Your task to perform on an android device: turn off javascript in the chrome app Image 0: 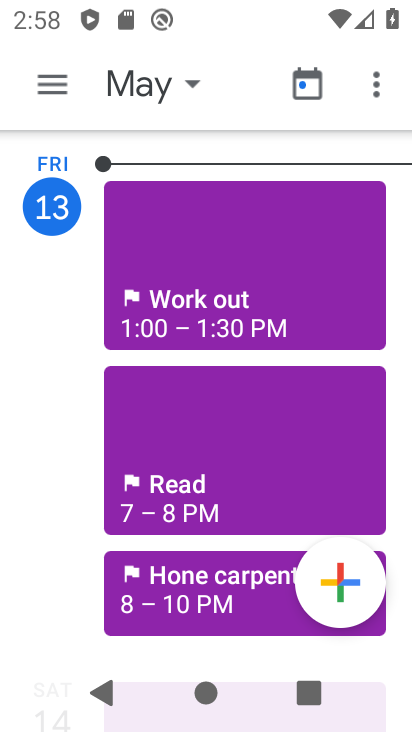
Step 0: press home button
Your task to perform on an android device: turn off javascript in the chrome app Image 1: 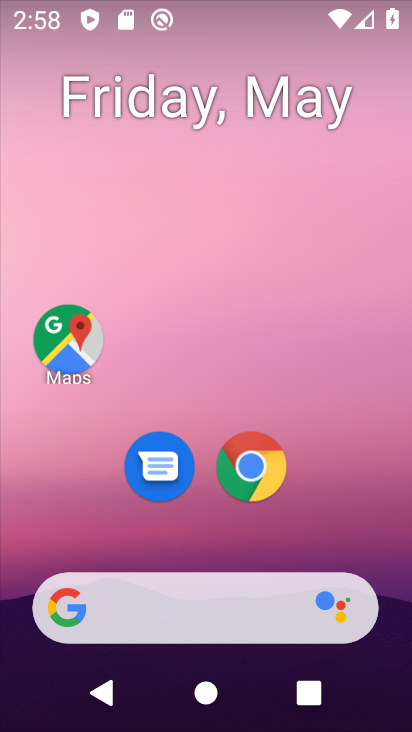
Step 1: click (252, 465)
Your task to perform on an android device: turn off javascript in the chrome app Image 2: 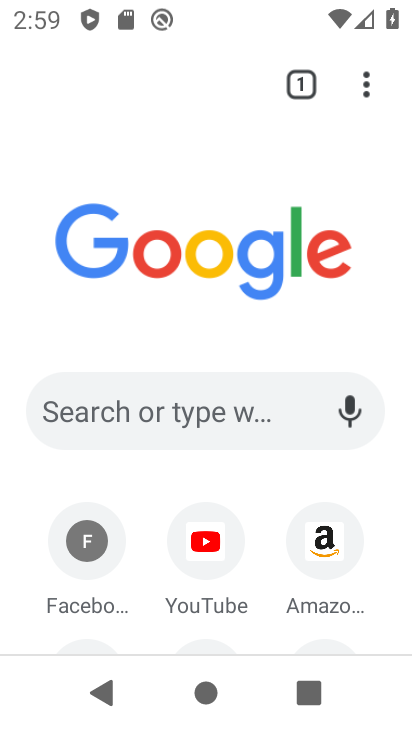
Step 2: click (374, 83)
Your task to perform on an android device: turn off javascript in the chrome app Image 3: 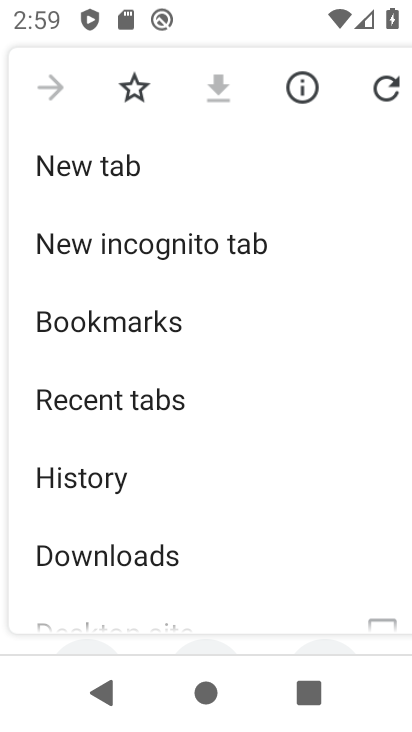
Step 3: drag from (199, 564) to (231, 124)
Your task to perform on an android device: turn off javascript in the chrome app Image 4: 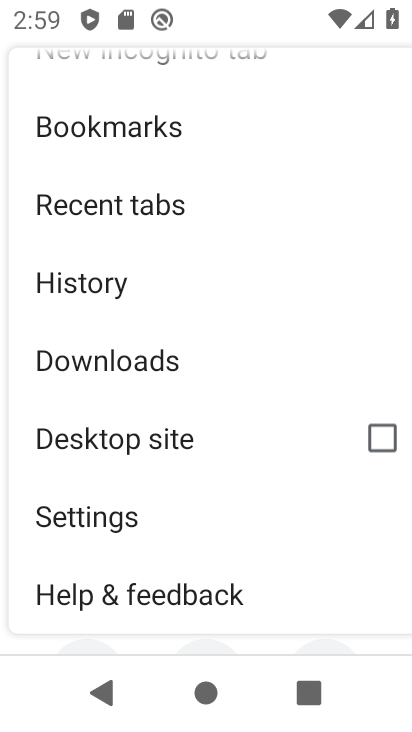
Step 4: drag from (180, 562) to (181, 460)
Your task to perform on an android device: turn off javascript in the chrome app Image 5: 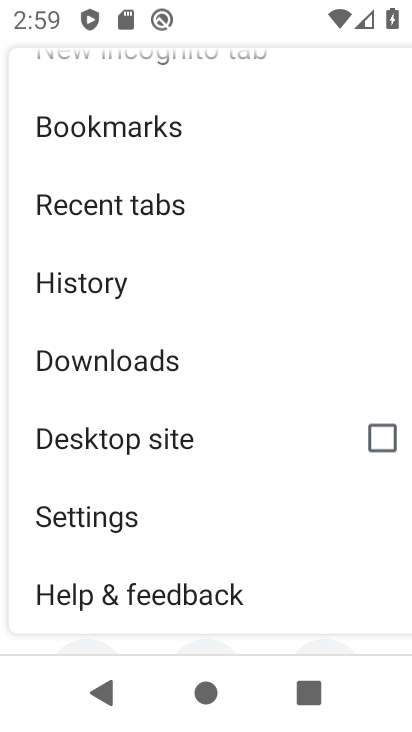
Step 5: click (145, 506)
Your task to perform on an android device: turn off javascript in the chrome app Image 6: 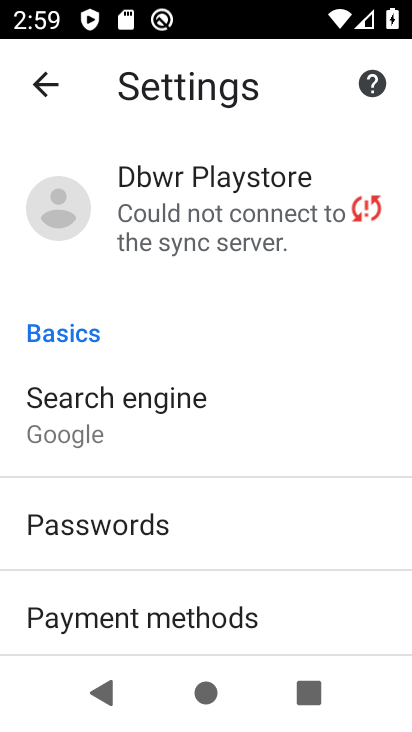
Step 6: click (271, 269)
Your task to perform on an android device: turn off javascript in the chrome app Image 7: 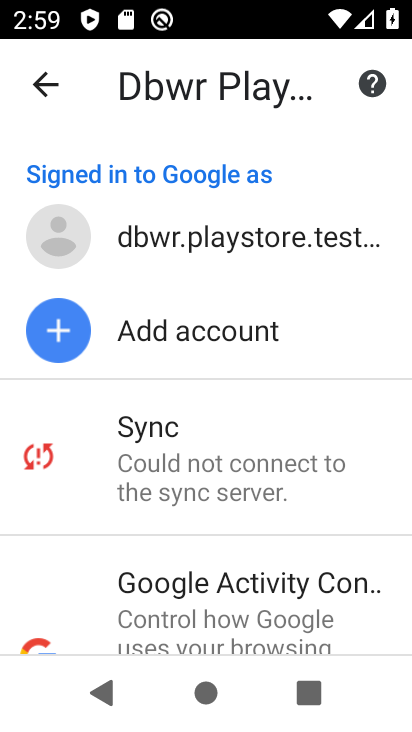
Step 7: click (48, 96)
Your task to perform on an android device: turn off javascript in the chrome app Image 8: 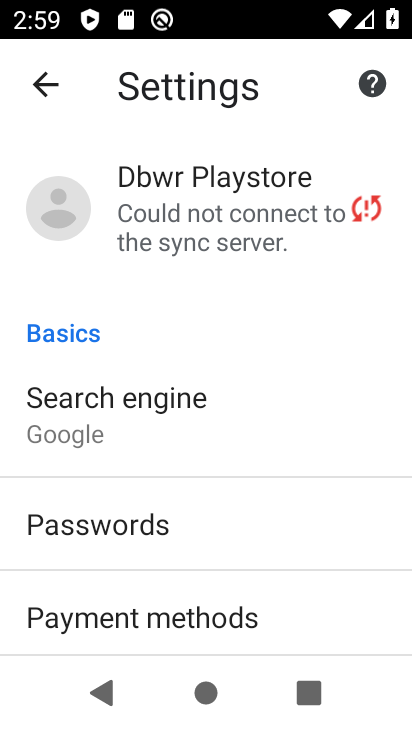
Step 8: drag from (153, 484) to (150, 92)
Your task to perform on an android device: turn off javascript in the chrome app Image 9: 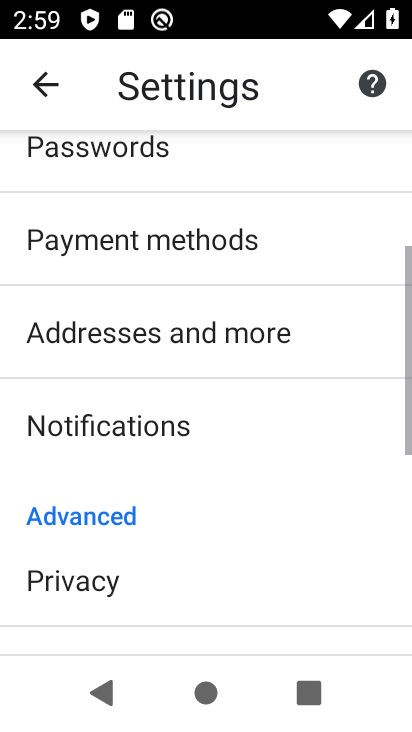
Step 9: click (253, 246)
Your task to perform on an android device: turn off javascript in the chrome app Image 10: 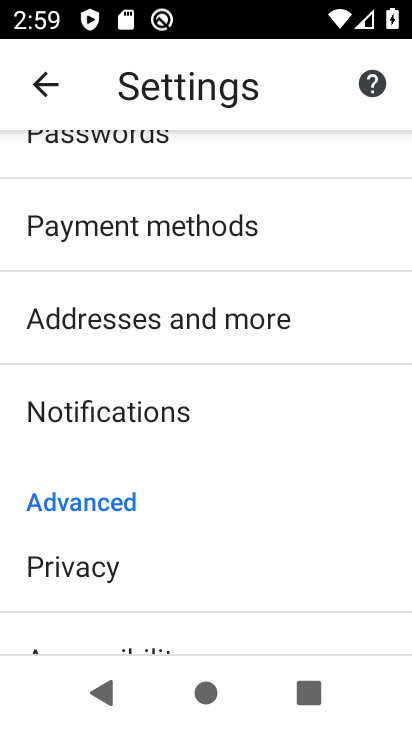
Step 10: drag from (164, 563) to (191, 108)
Your task to perform on an android device: turn off javascript in the chrome app Image 11: 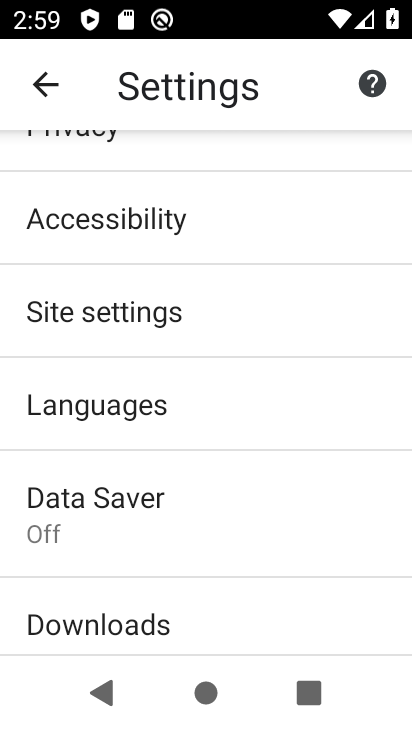
Step 11: click (187, 311)
Your task to perform on an android device: turn off javascript in the chrome app Image 12: 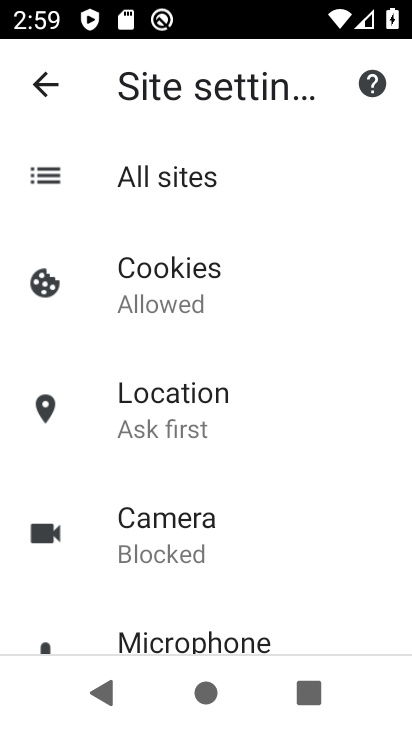
Step 12: drag from (193, 550) to (218, 255)
Your task to perform on an android device: turn off javascript in the chrome app Image 13: 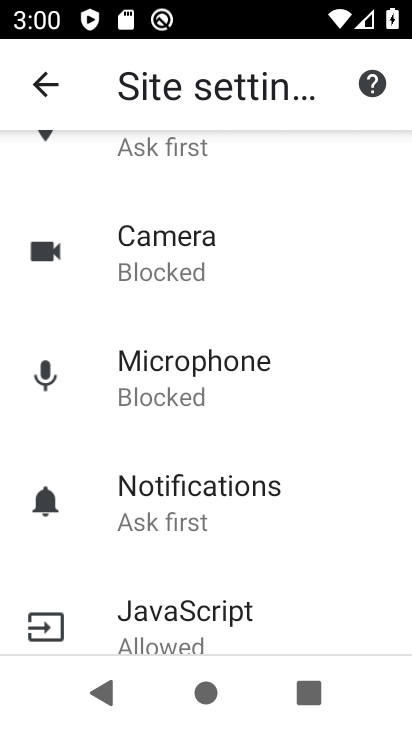
Step 13: click (151, 618)
Your task to perform on an android device: turn off javascript in the chrome app Image 14: 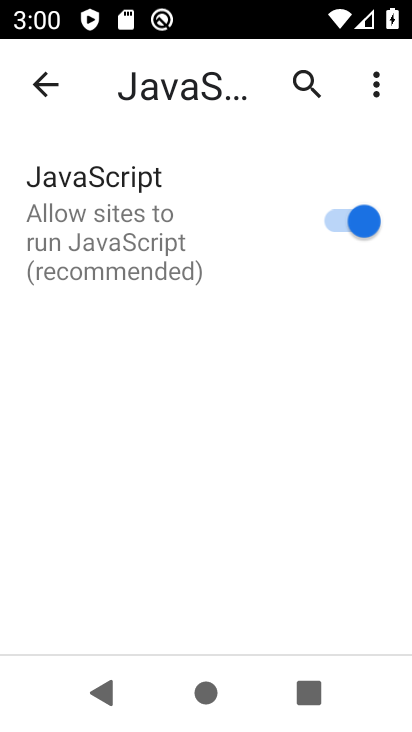
Step 14: task complete